Your task to perform on an android device: add a contact in the contacts app Image 0: 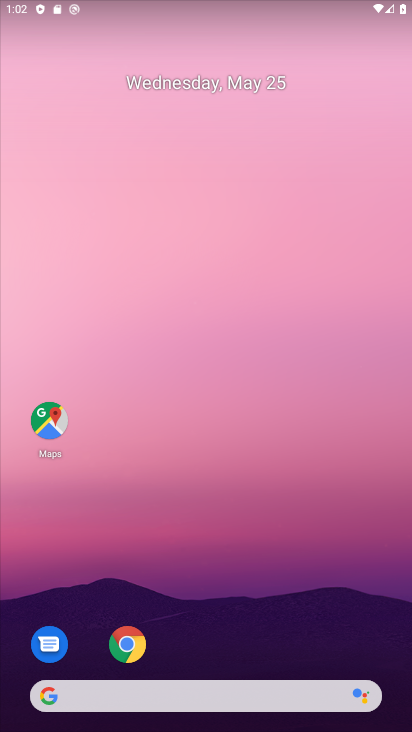
Step 0: drag from (217, 626) to (214, 0)
Your task to perform on an android device: add a contact in the contacts app Image 1: 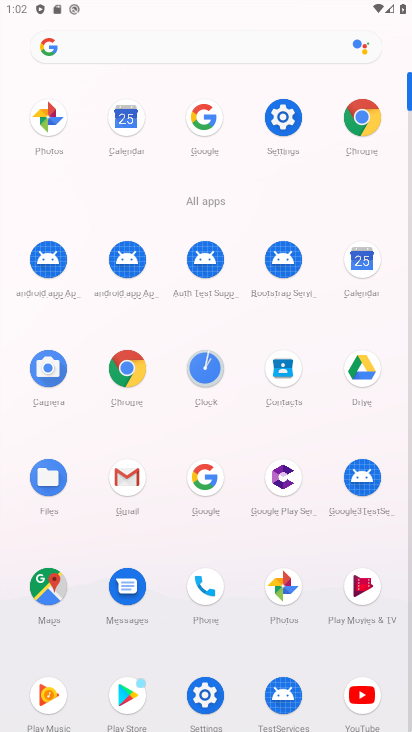
Step 1: click (291, 377)
Your task to perform on an android device: add a contact in the contacts app Image 2: 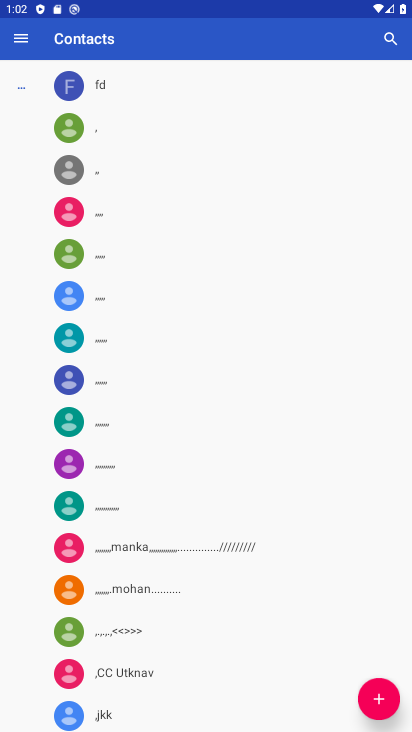
Step 2: click (382, 712)
Your task to perform on an android device: add a contact in the contacts app Image 3: 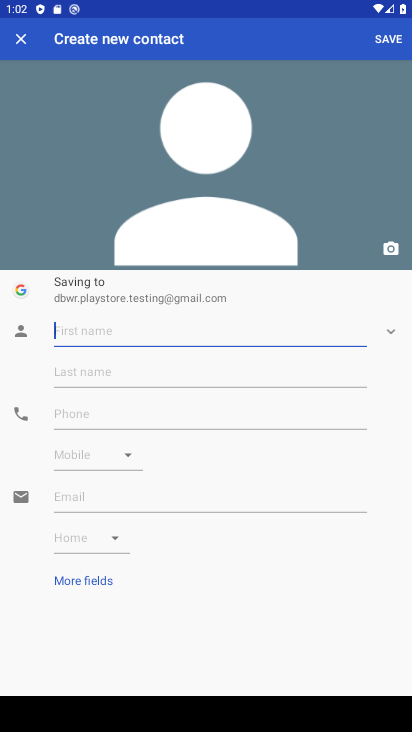
Step 3: type "Ruchika"
Your task to perform on an android device: add a contact in the contacts app Image 4: 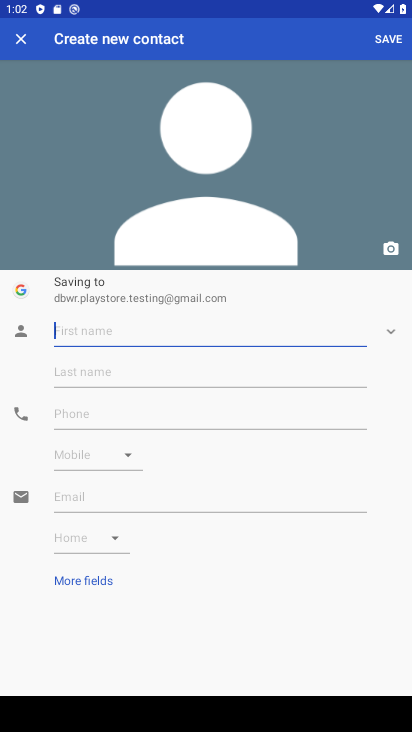
Step 4: click (113, 378)
Your task to perform on an android device: add a contact in the contacts app Image 5: 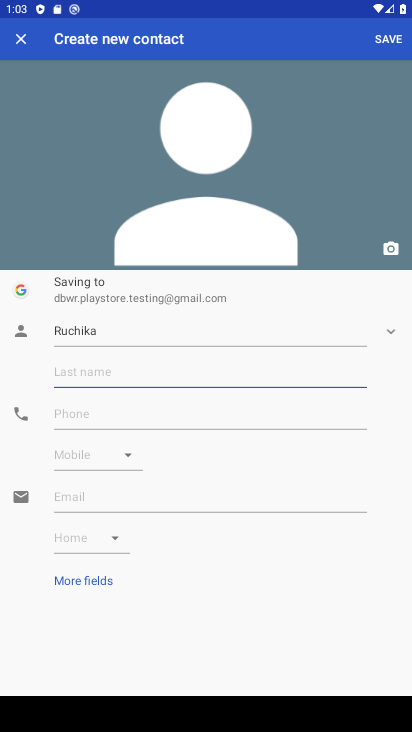
Step 5: type "jangid"
Your task to perform on an android device: add a contact in the contacts app Image 6: 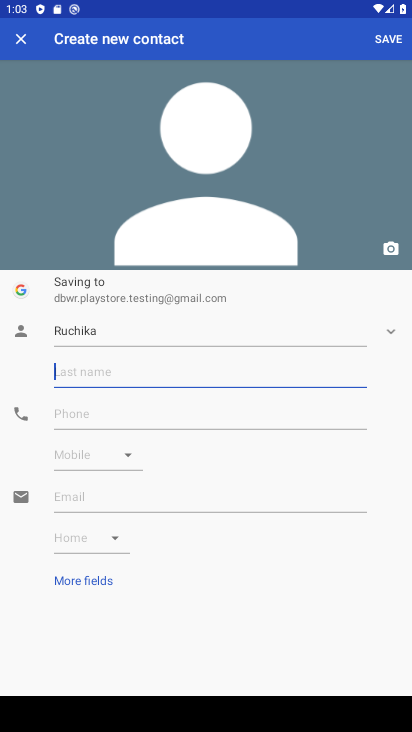
Step 6: click (205, 363)
Your task to perform on an android device: add a contact in the contacts app Image 7: 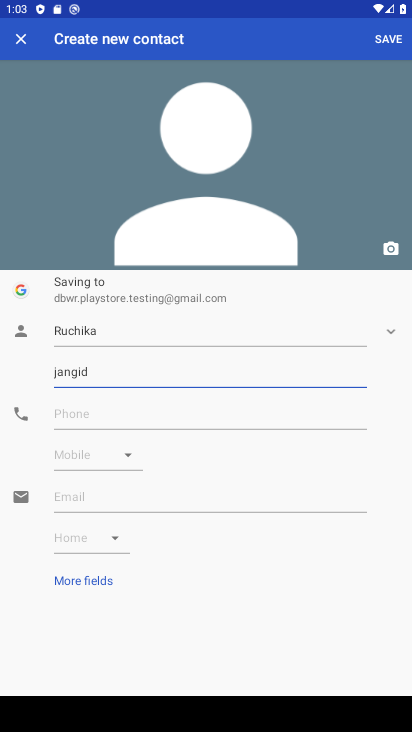
Step 7: click (218, 405)
Your task to perform on an android device: add a contact in the contacts app Image 8: 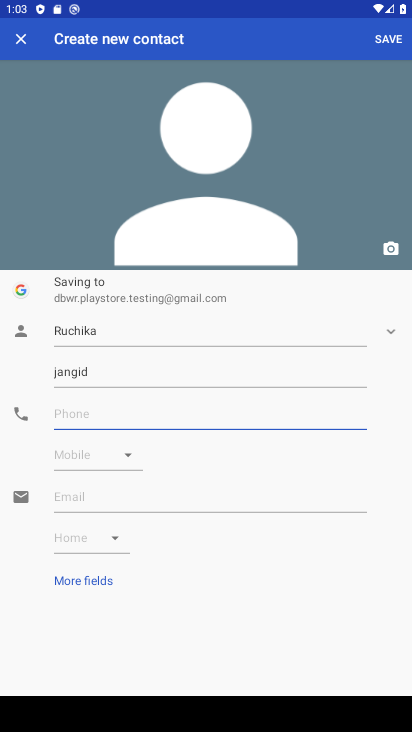
Step 8: type "8787787890"
Your task to perform on an android device: add a contact in the contacts app Image 9: 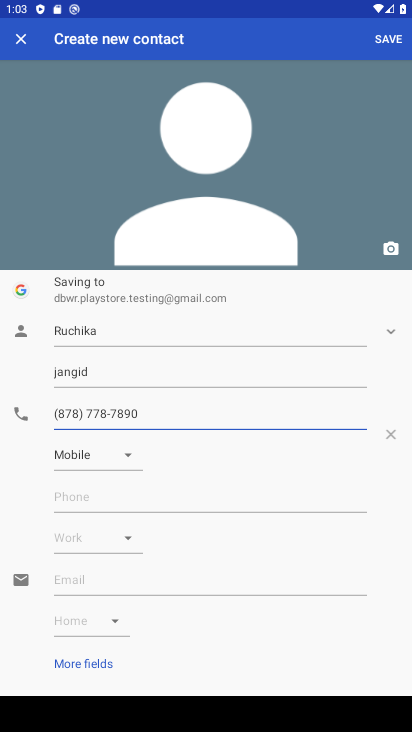
Step 9: click (387, 43)
Your task to perform on an android device: add a contact in the contacts app Image 10: 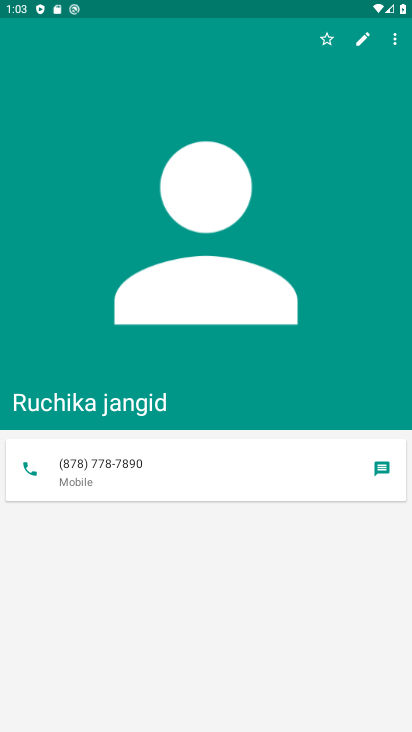
Step 10: task complete